Your task to perform on an android device: Open location settings Image 0: 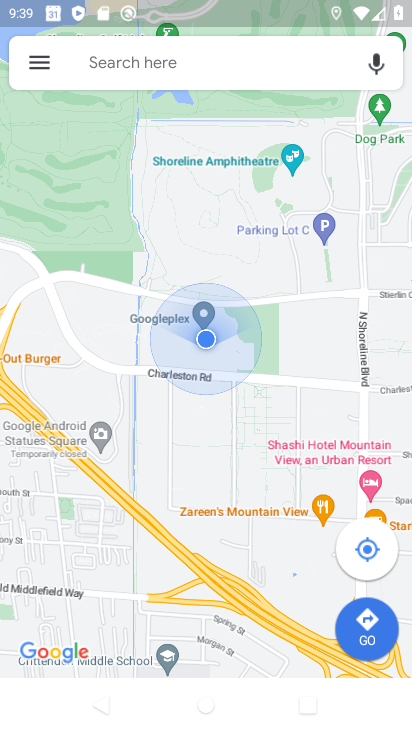
Step 0: press home button
Your task to perform on an android device: Open location settings Image 1: 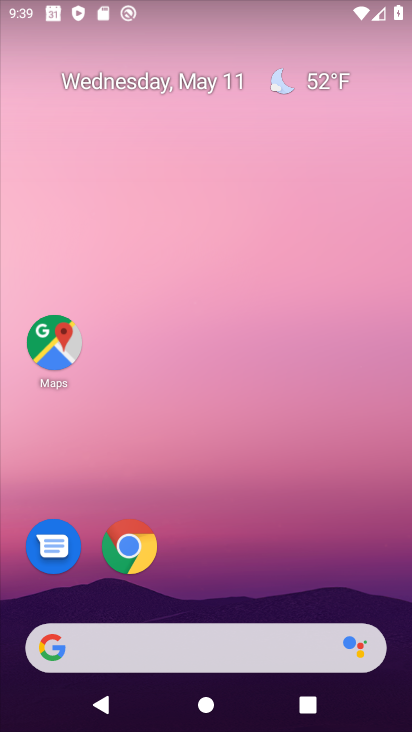
Step 1: drag from (210, 658) to (137, 170)
Your task to perform on an android device: Open location settings Image 2: 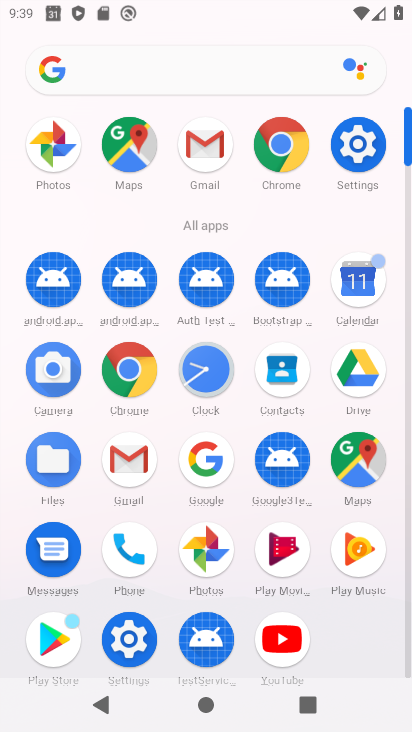
Step 2: click (133, 636)
Your task to perform on an android device: Open location settings Image 3: 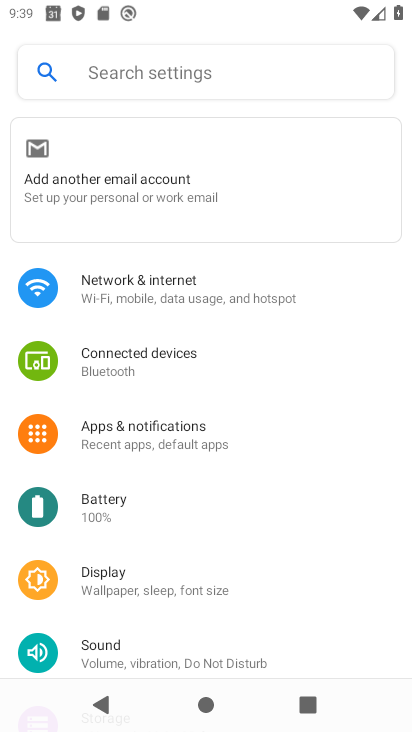
Step 3: drag from (102, 607) to (85, 157)
Your task to perform on an android device: Open location settings Image 4: 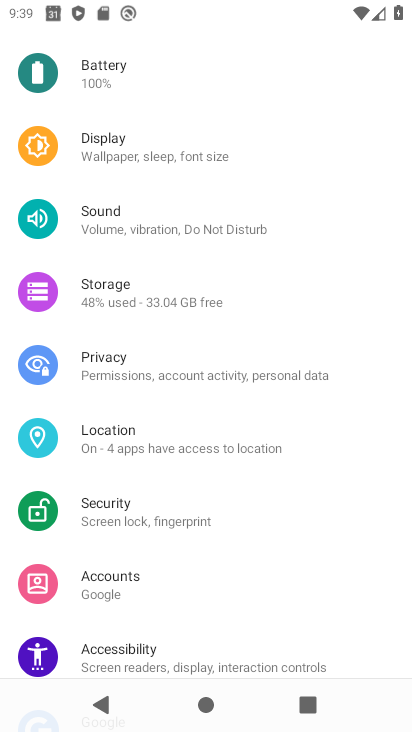
Step 4: click (113, 451)
Your task to perform on an android device: Open location settings Image 5: 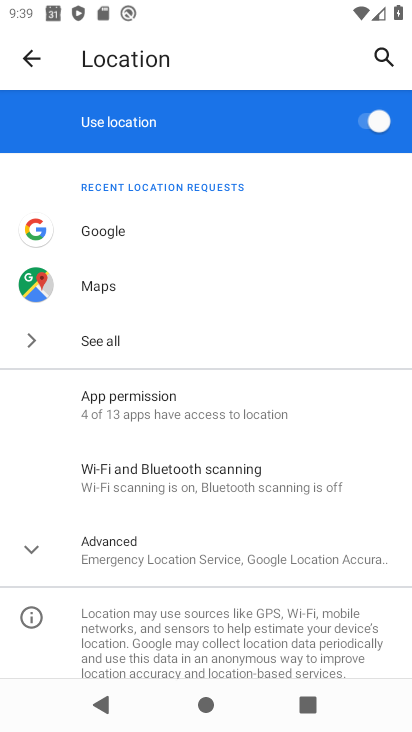
Step 5: click (167, 564)
Your task to perform on an android device: Open location settings Image 6: 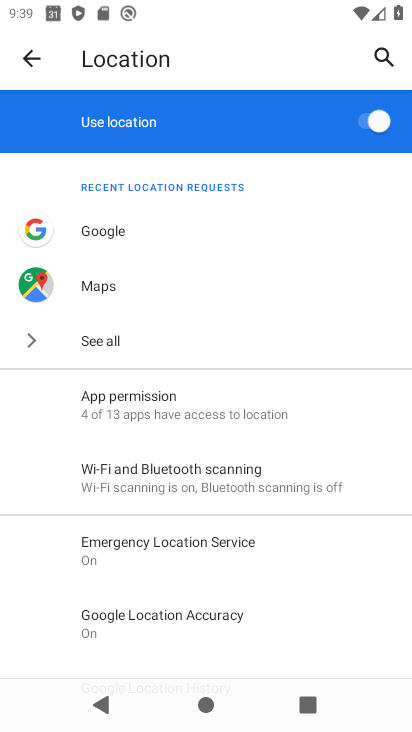
Step 6: task complete